Your task to perform on an android device: Go to Google maps Image 0: 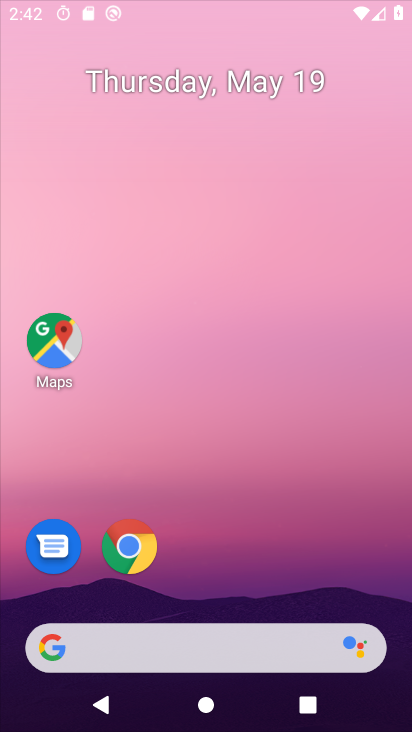
Step 0: press home button
Your task to perform on an android device: Go to Google maps Image 1: 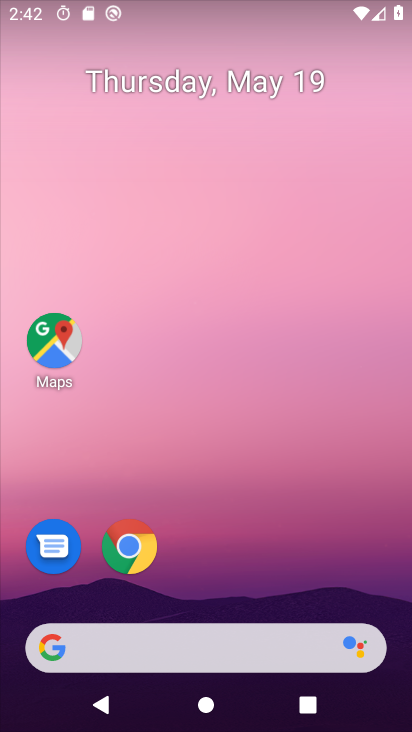
Step 1: click (53, 337)
Your task to perform on an android device: Go to Google maps Image 2: 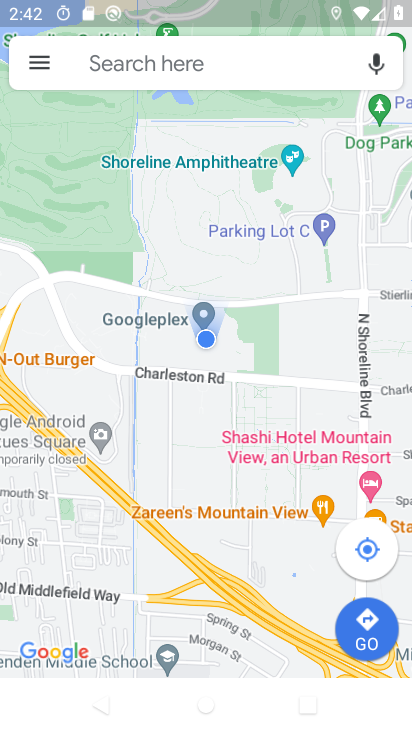
Step 2: task complete